Your task to perform on an android device: find snoozed emails in the gmail app Image 0: 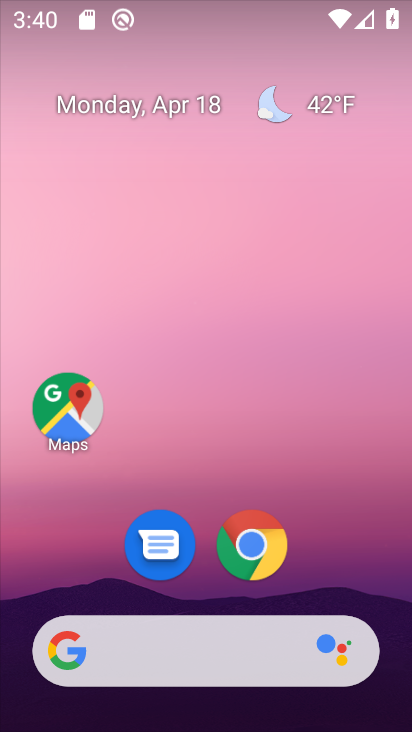
Step 0: drag from (345, 516) to (342, 72)
Your task to perform on an android device: find snoozed emails in the gmail app Image 1: 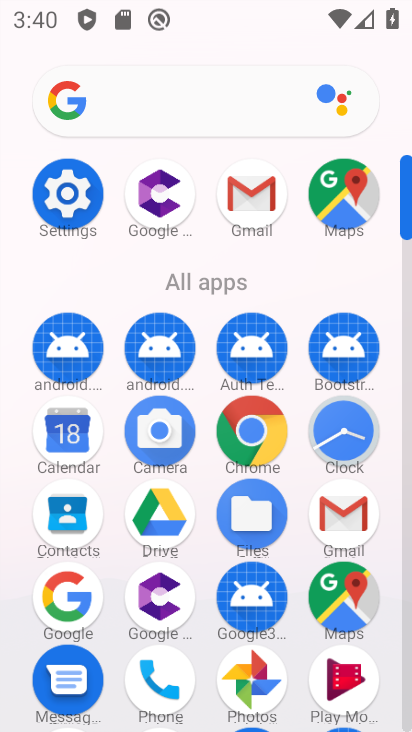
Step 1: click (342, 516)
Your task to perform on an android device: find snoozed emails in the gmail app Image 2: 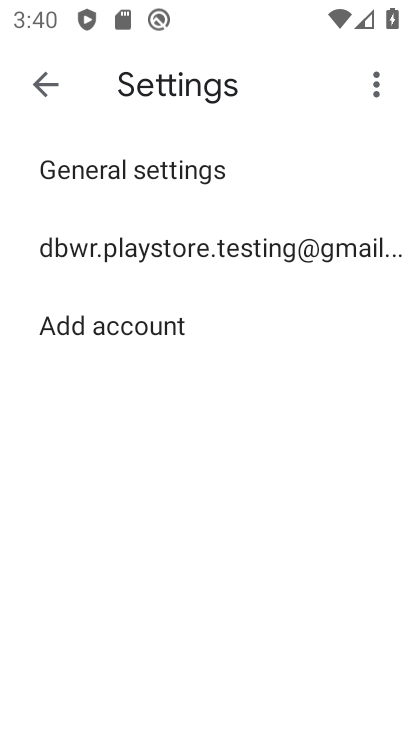
Step 2: click (39, 85)
Your task to perform on an android device: find snoozed emails in the gmail app Image 3: 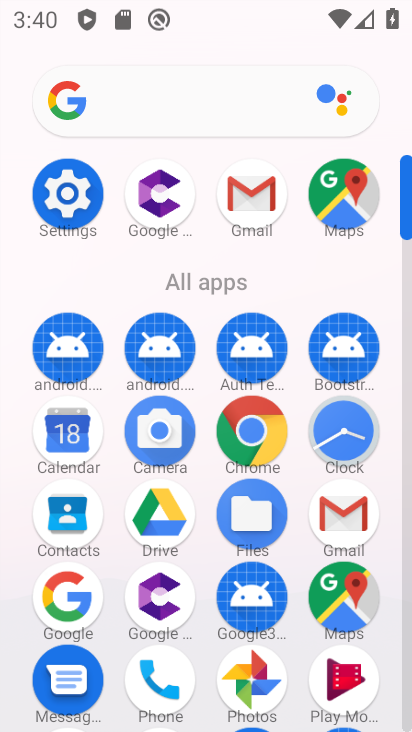
Step 3: click (339, 510)
Your task to perform on an android device: find snoozed emails in the gmail app Image 4: 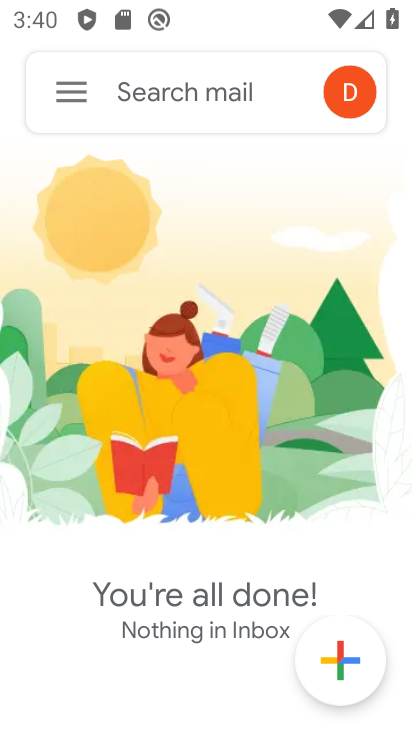
Step 4: click (73, 94)
Your task to perform on an android device: find snoozed emails in the gmail app Image 5: 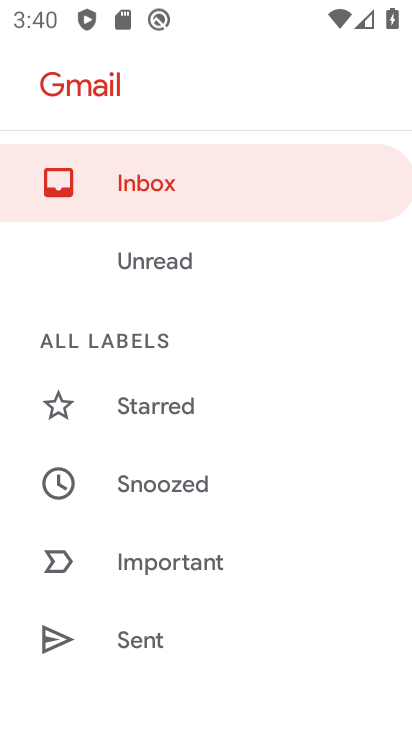
Step 5: drag from (311, 439) to (317, 220)
Your task to perform on an android device: find snoozed emails in the gmail app Image 6: 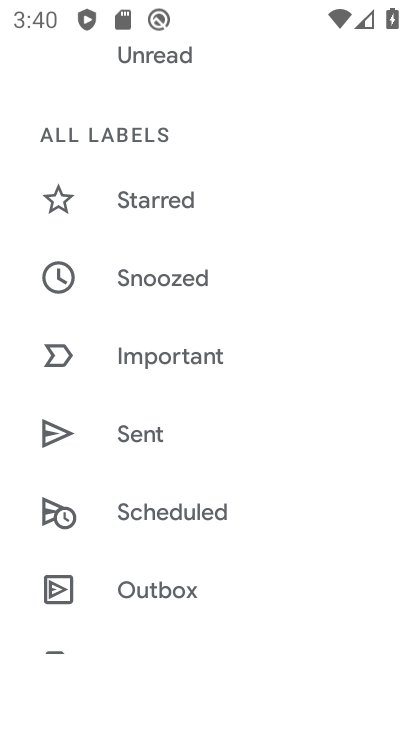
Step 6: drag from (331, 575) to (341, 261)
Your task to perform on an android device: find snoozed emails in the gmail app Image 7: 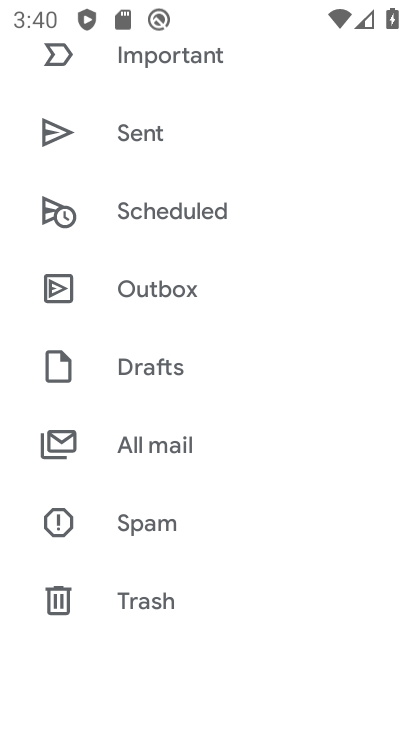
Step 7: drag from (315, 556) to (319, 232)
Your task to perform on an android device: find snoozed emails in the gmail app Image 8: 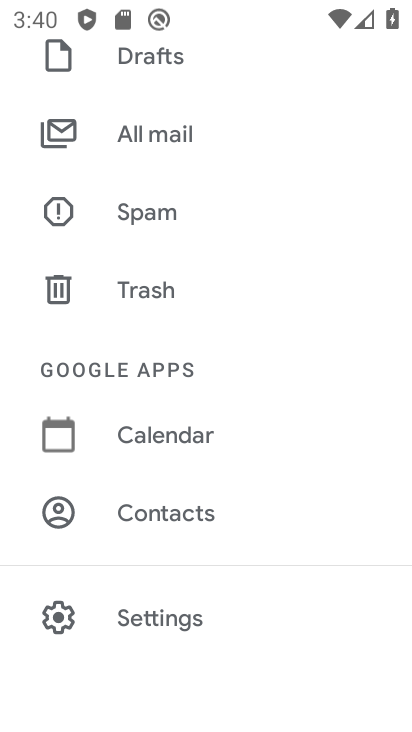
Step 8: drag from (294, 567) to (306, 293)
Your task to perform on an android device: find snoozed emails in the gmail app Image 9: 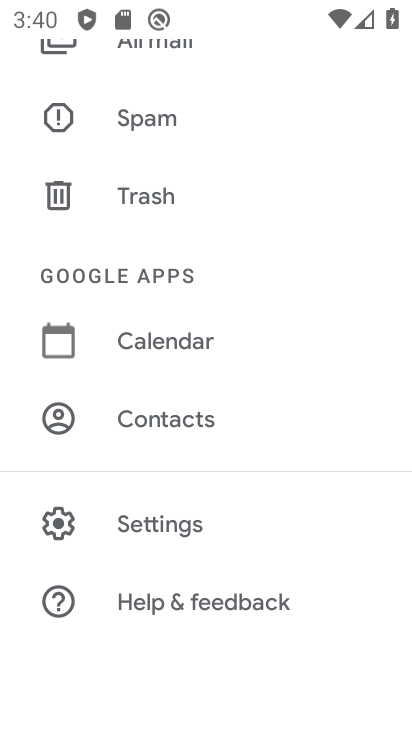
Step 9: drag from (339, 229) to (311, 505)
Your task to perform on an android device: find snoozed emails in the gmail app Image 10: 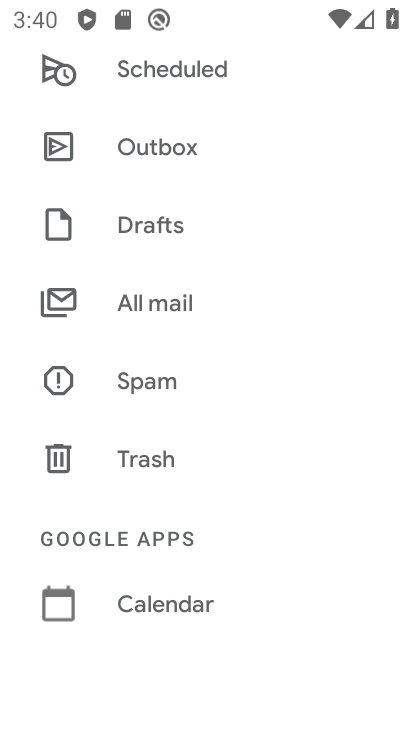
Step 10: drag from (348, 251) to (318, 486)
Your task to perform on an android device: find snoozed emails in the gmail app Image 11: 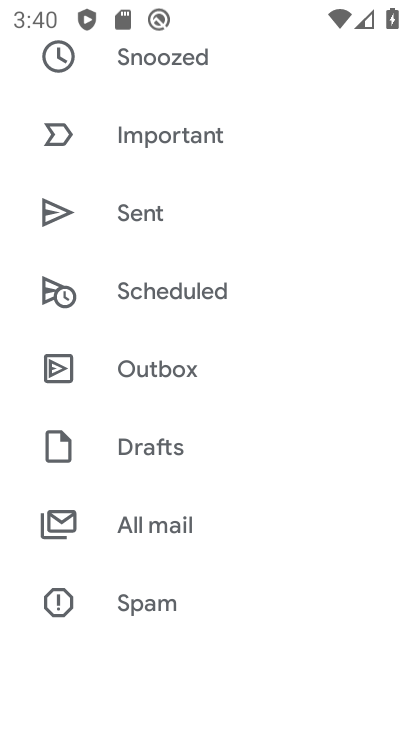
Step 11: drag from (311, 206) to (321, 462)
Your task to perform on an android device: find snoozed emails in the gmail app Image 12: 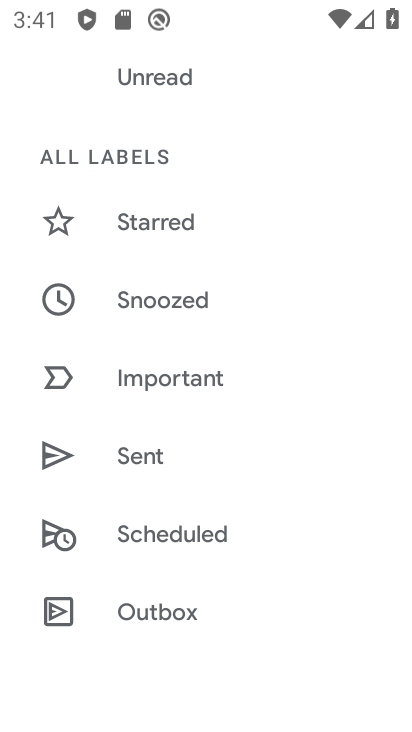
Step 12: drag from (287, 171) to (281, 402)
Your task to perform on an android device: find snoozed emails in the gmail app Image 13: 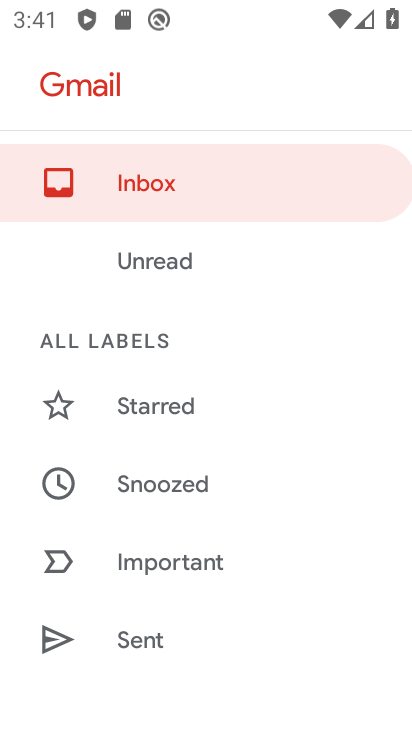
Step 13: click (170, 487)
Your task to perform on an android device: find snoozed emails in the gmail app Image 14: 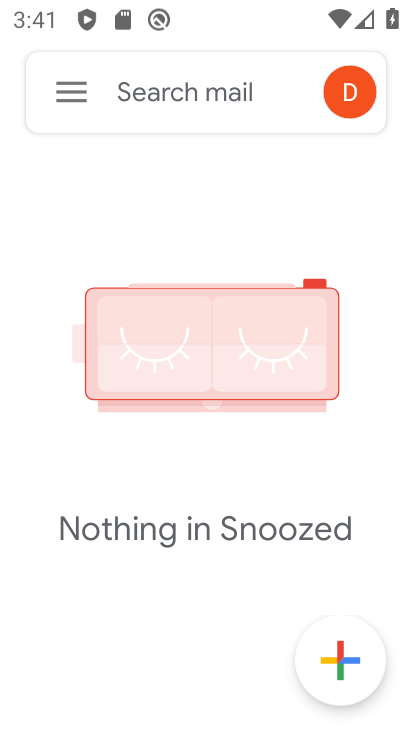
Step 14: task complete